Your task to perform on an android device: Open wifi settings Image 0: 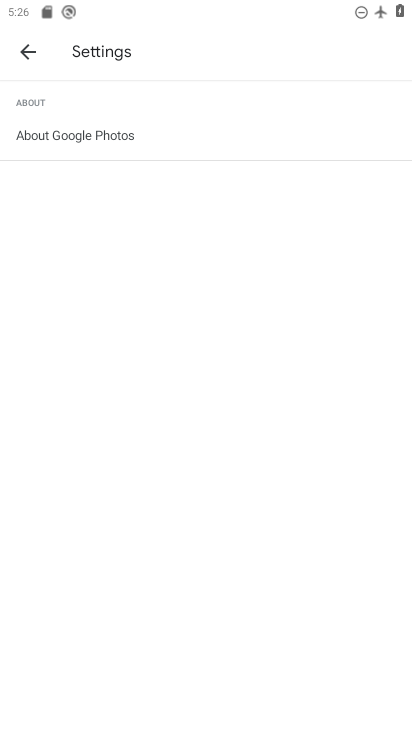
Step 0: drag from (247, 7) to (139, 561)
Your task to perform on an android device: Open wifi settings Image 1: 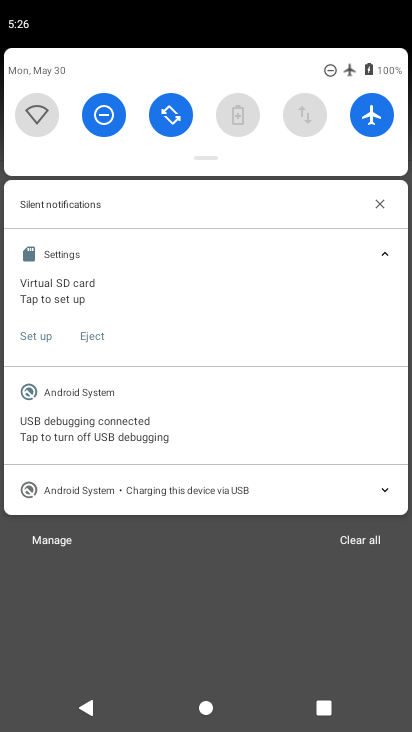
Step 1: click (24, 127)
Your task to perform on an android device: Open wifi settings Image 2: 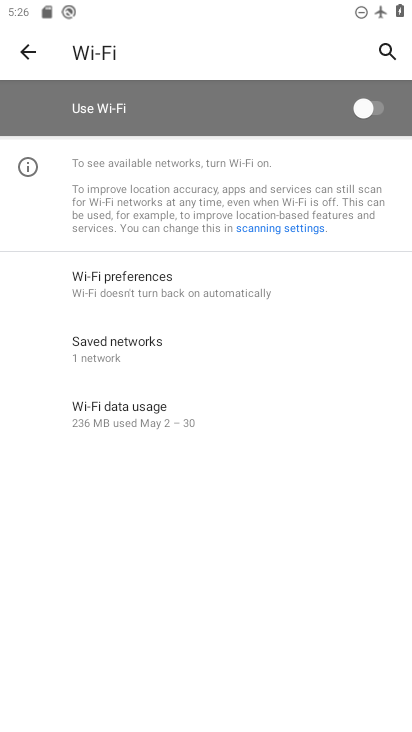
Step 2: task complete